Your task to perform on an android device: change keyboard looks Image 0: 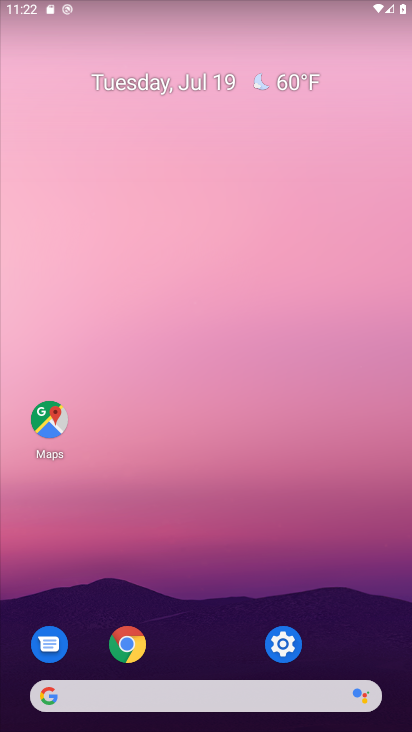
Step 0: click (283, 643)
Your task to perform on an android device: change keyboard looks Image 1: 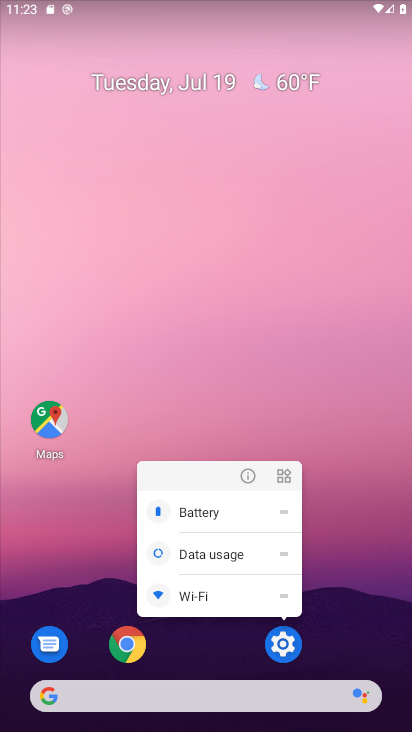
Step 1: click (287, 644)
Your task to perform on an android device: change keyboard looks Image 2: 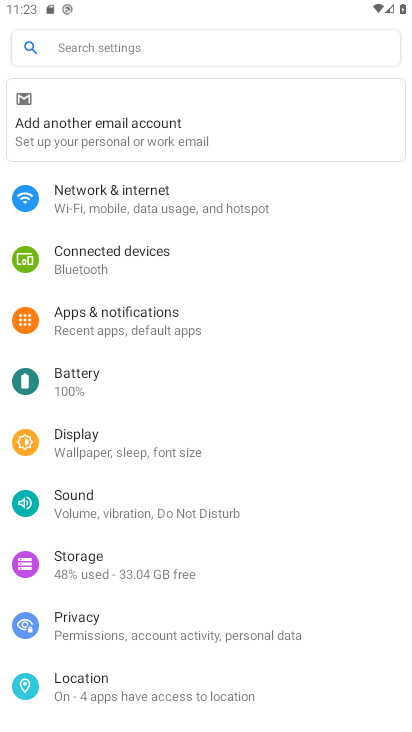
Step 2: click (86, 44)
Your task to perform on an android device: change keyboard looks Image 3: 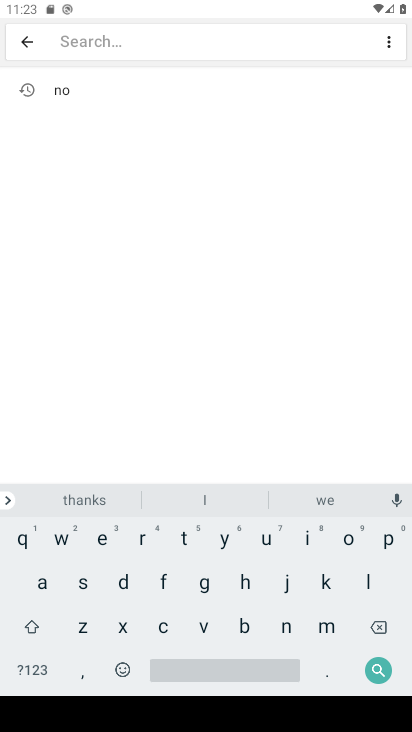
Step 3: click (327, 576)
Your task to perform on an android device: change keyboard looks Image 4: 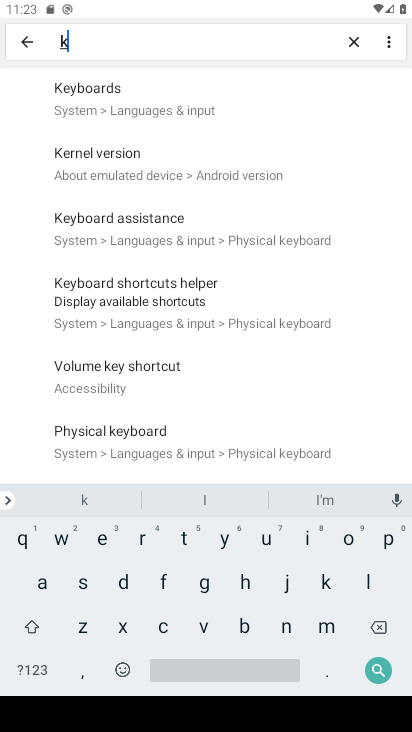
Step 4: click (102, 86)
Your task to perform on an android device: change keyboard looks Image 5: 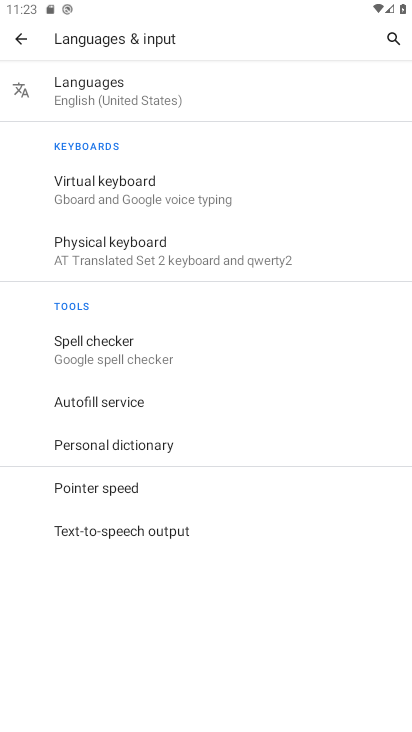
Step 5: click (113, 195)
Your task to perform on an android device: change keyboard looks Image 6: 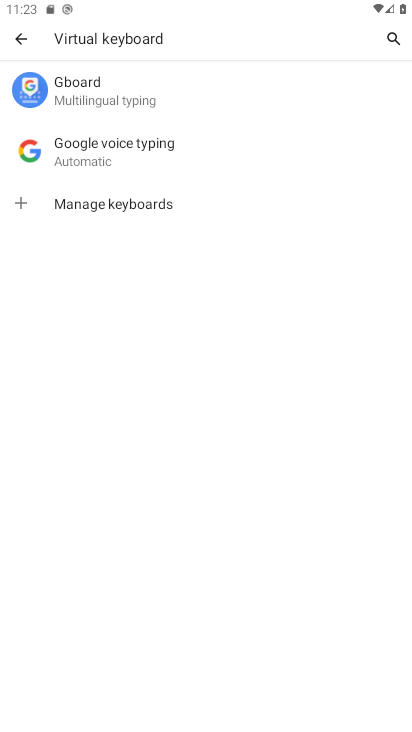
Step 6: click (91, 101)
Your task to perform on an android device: change keyboard looks Image 7: 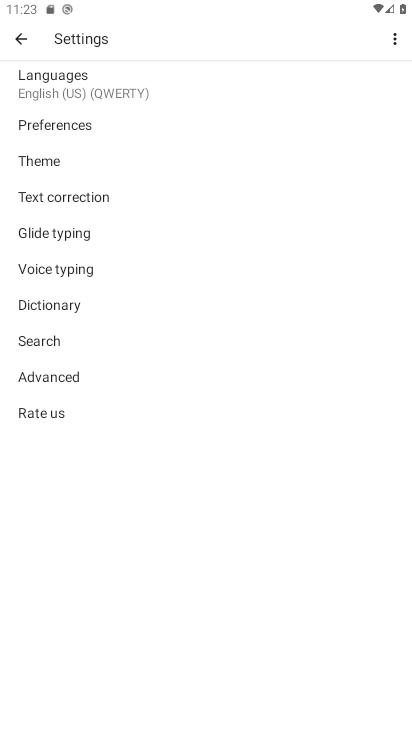
Step 7: click (67, 150)
Your task to perform on an android device: change keyboard looks Image 8: 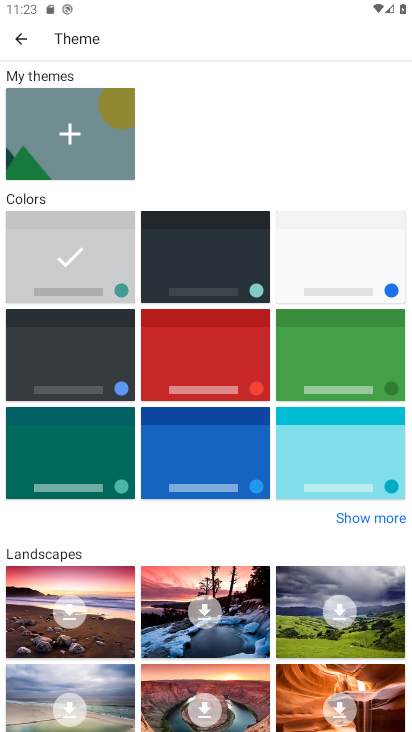
Step 8: click (85, 364)
Your task to perform on an android device: change keyboard looks Image 9: 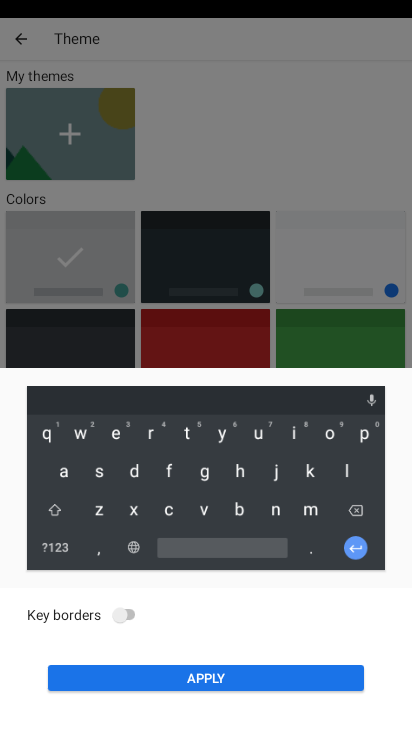
Step 9: click (121, 612)
Your task to perform on an android device: change keyboard looks Image 10: 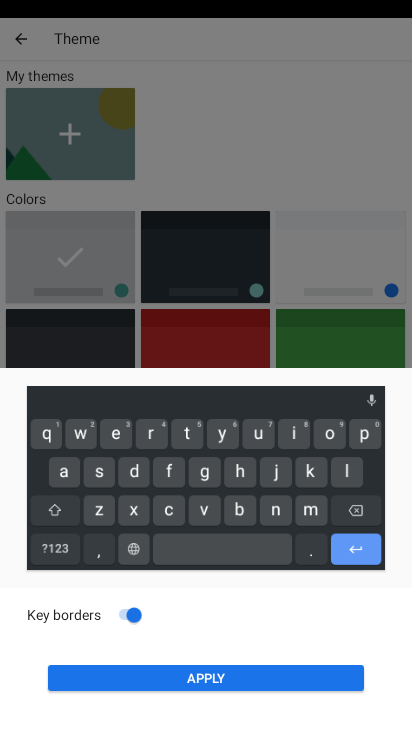
Step 10: click (210, 683)
Your task to perform on an android device: change keyboard looks Image 11: 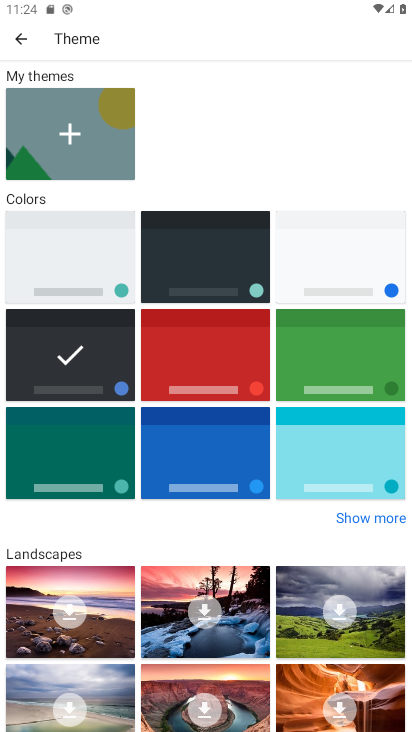
Step 11: task complete